Your task to perform on an android device: Check the news Image 0: 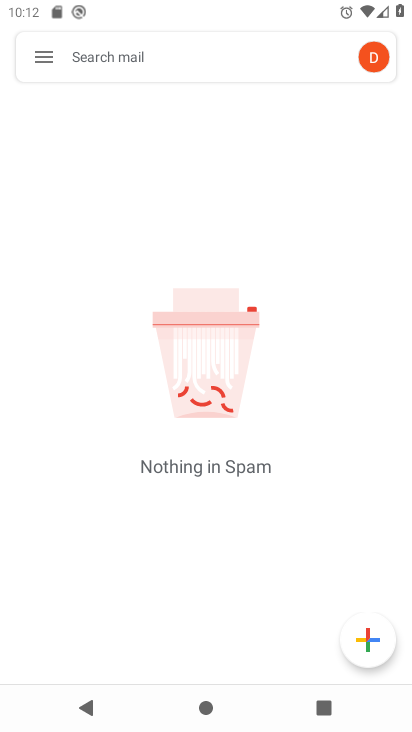
Step 0: press home button
Your task to perform on an android device: Check the news Image 1: 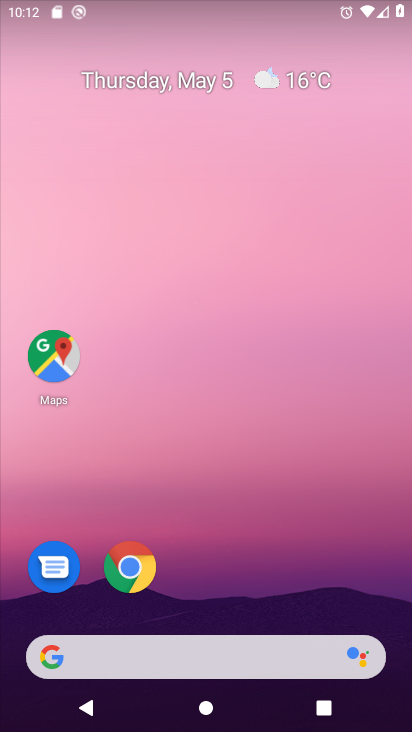
Step 1: click (220, 649)
Your task to perform on an android device: Check the news Image 2: 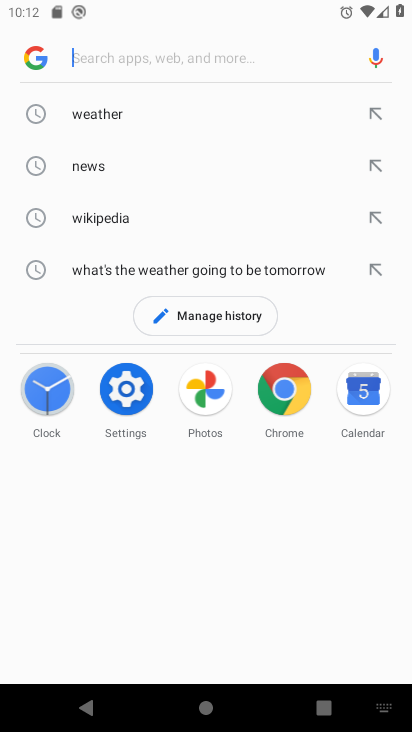
Step 2: click (97, 163)
Your task to perform on an android device: Check the news Image 3: 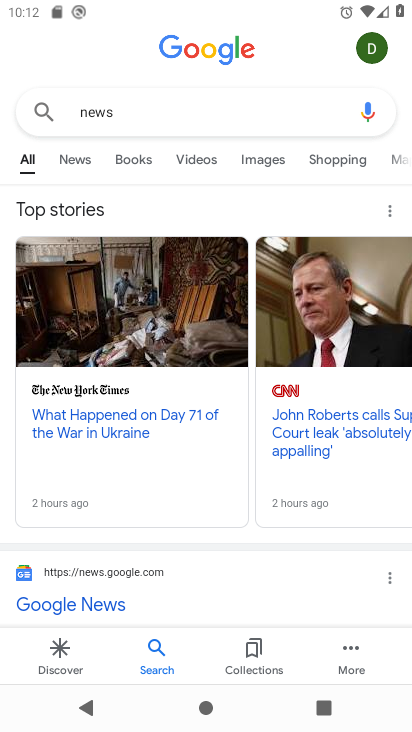
Step 3: click (77, 152)
Your task to perform on an android device: Check the news Image 4: 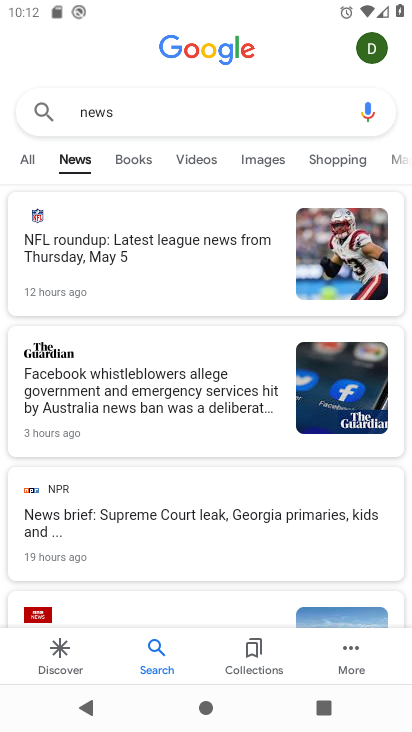
Step 4: task complete